Your task to perform on an android device: delete browsing data in the chrome app Image 0: 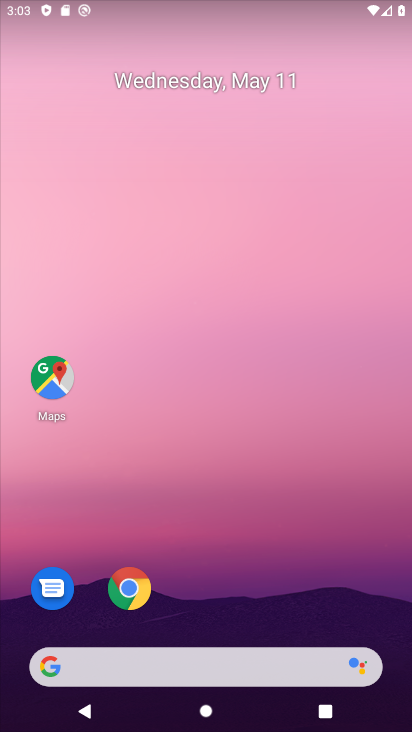
Step 0: drag from (199, 612) to (247, 111)
Your task to perform on an android device: delete browsing data in the chrome app Image 1: 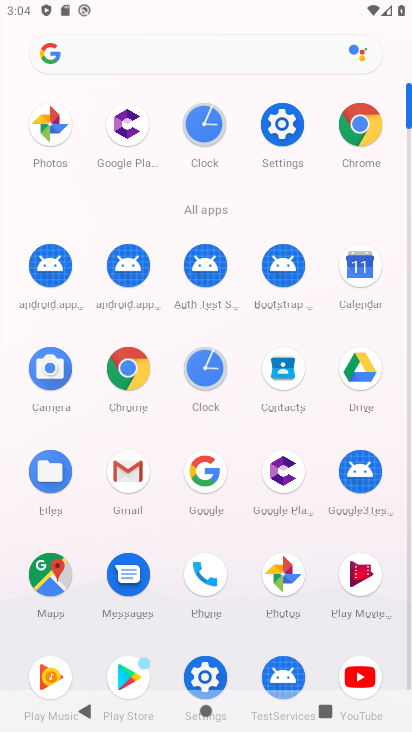
Step 1: click (376, 146)
Your task to perform on an android device: delete browsing data in the chrome app Image 2: 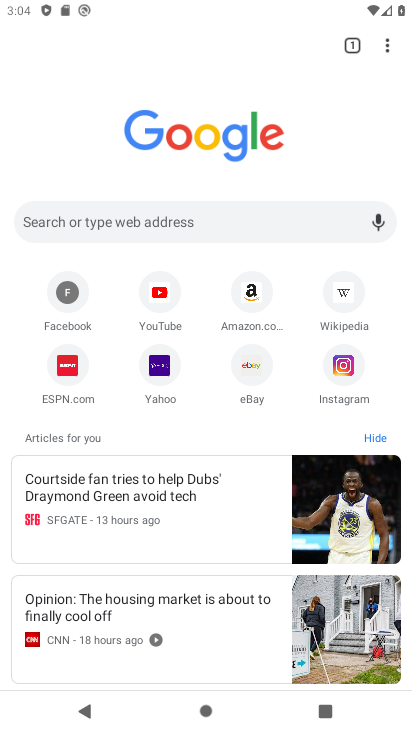
Step 2: click (377, 44)
Your task to perform on an android device: delete browsing data in the chrome app Image 3: 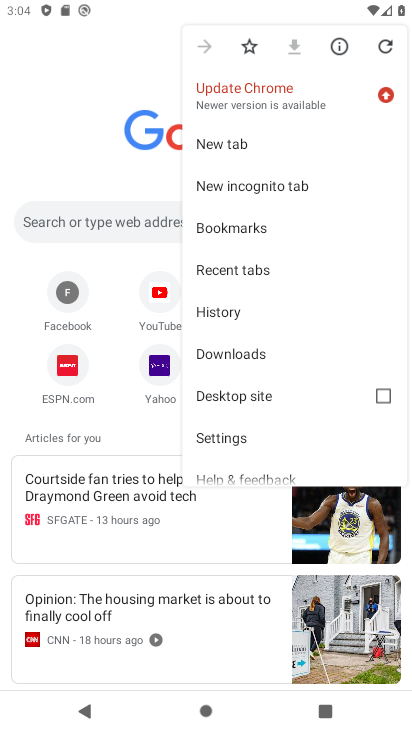
Step 3: click (221, 317)
Your task to perform on an android device: delete browsing data in the chrome app Image 4: 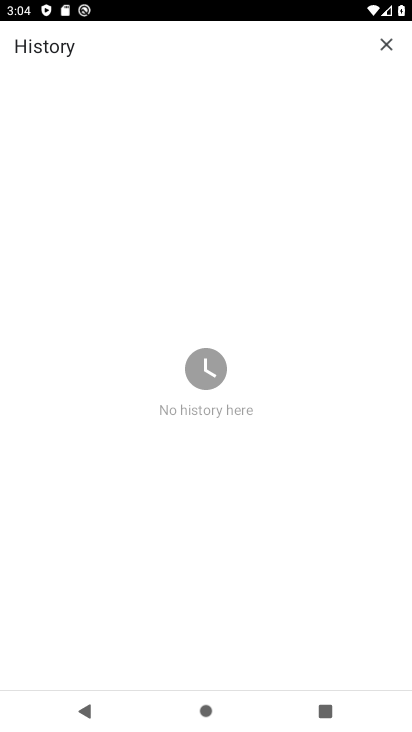
Step 4: task complete